Your task to perform on an android device: What is the recent news? Image 0: 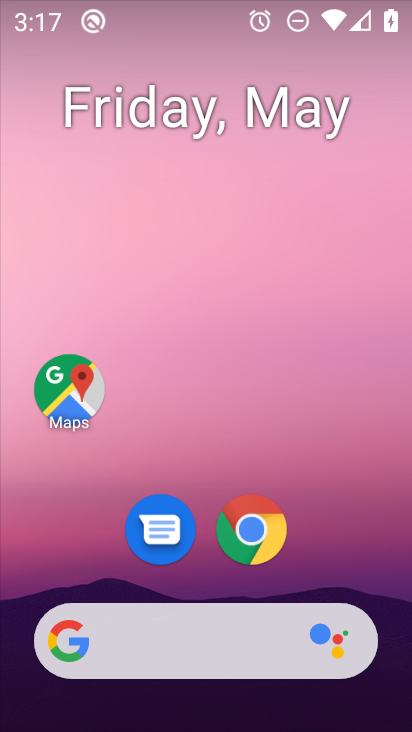
Step 0: drag from (5, 258) to (337, 240)
Your task to perform on an android device: What is the recent news? Image 1: 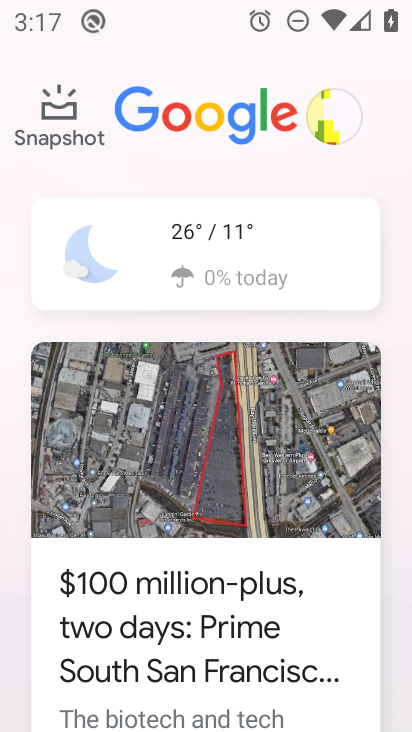
Step 1: task complete